Your task to perform on an android device: What's on my calendar today? Image 0: 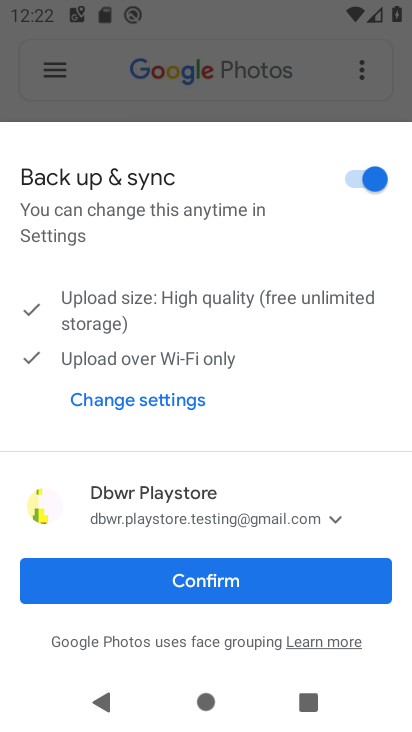
Step 0: press home button
Your task to perform on an android device: What's on my calendar today? Image 1: 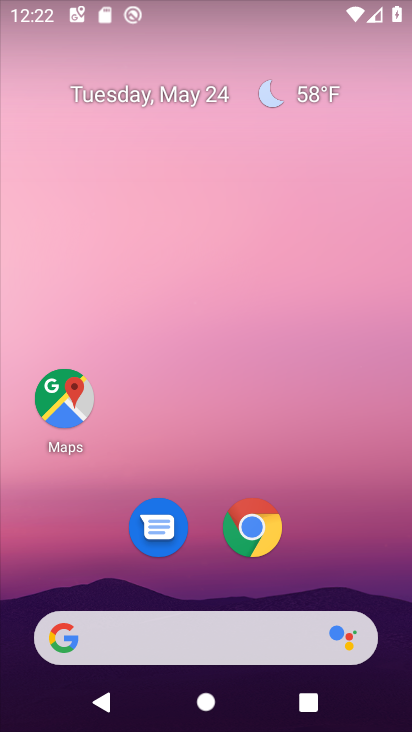
Step 1: drag from (400, 599) to (297, 189)
Your task to perform on an android device: What's on my calendar today? Image 2: 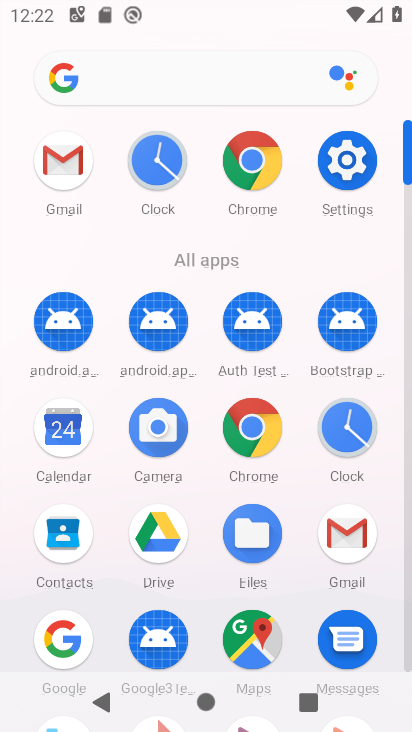
Step 2: click (62, 430)
Your task to perform on an android device: What's on my calendar today? Image 3: 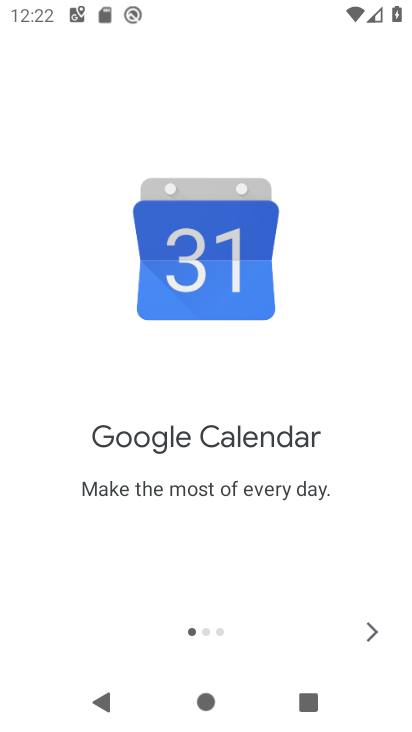
Step 3: click (372, 633)
Your task to perform on an android device: What's on my calendar today? Image 4: 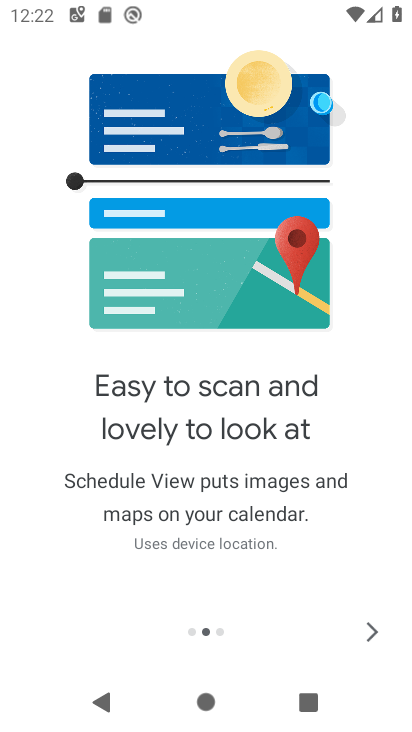
Step 4: click (372, 633)
Your task to perform on an android device: What's on my calendar today? Image 5: 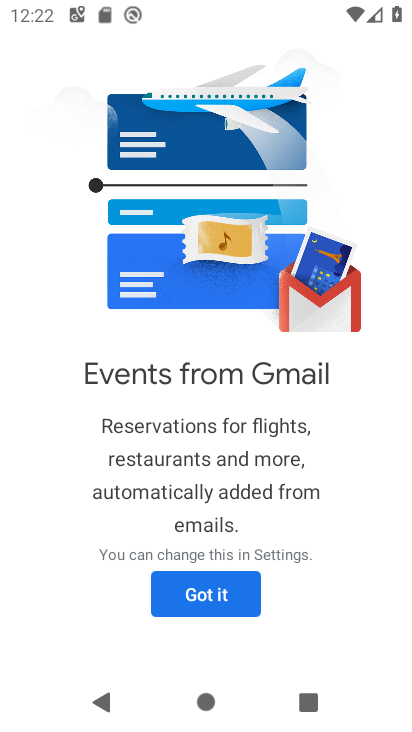
Step 5: click (223, 593)
Your task to perform on an android device: What's on my calendar today? Image 6: 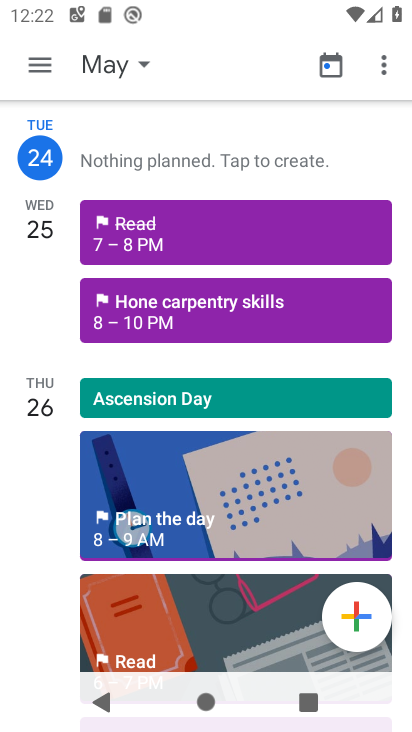
Step 6: task complete